Your task to perform on an android device: see creations saved in the google photos Image 0: 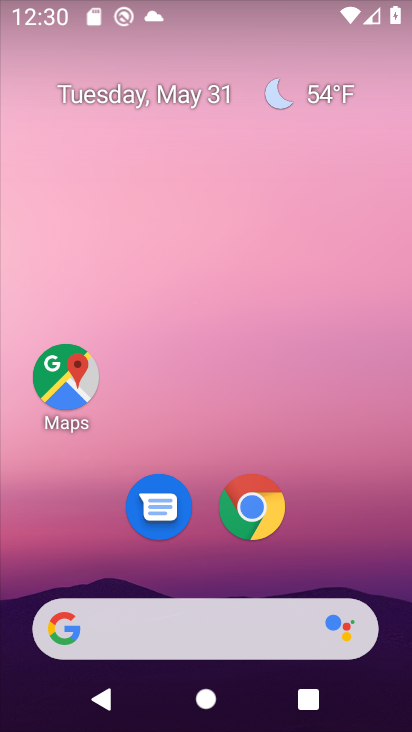
Step 0: drag from (287, 692) to (224, 208)
Your task to perform on an android device: see creations saved in the google photos Image 1: 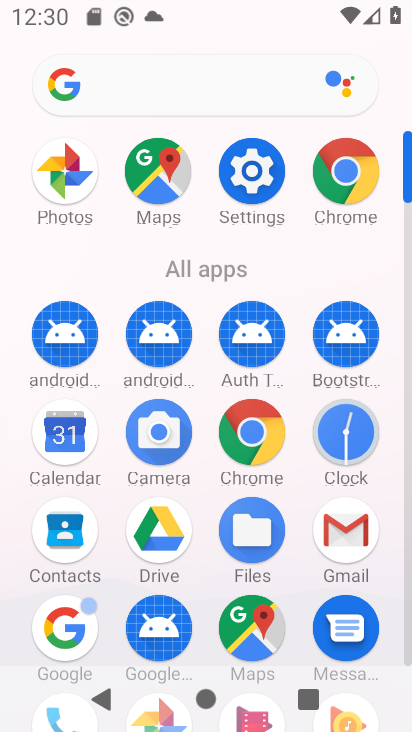
Step 1: click (62, 172)
Your task to perform on an android device: see creations saved in the google photos Image 2: 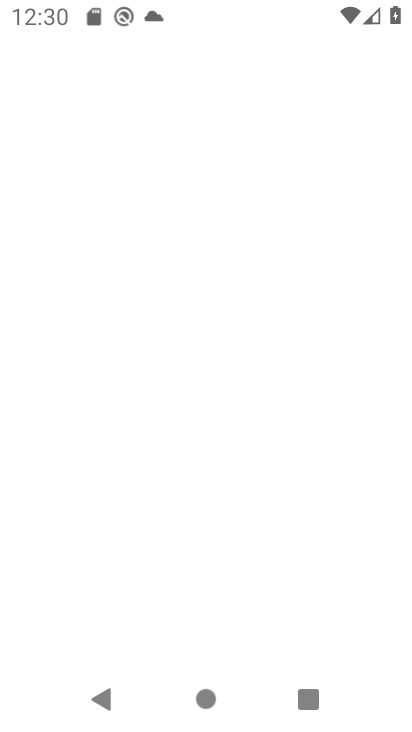
Step 2: click (62, 172)
Your task to perform on an android device: see creations saved in the google photos Image 3: 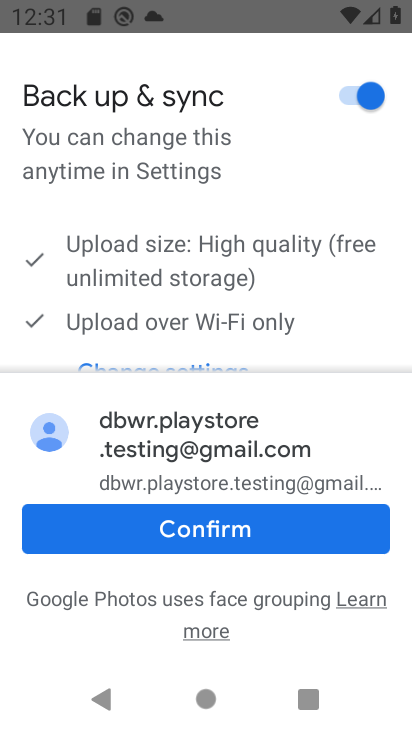
Step 3: click (224, 534)
Your task to perform on an android device: see creations saved in the google photos Image 4: 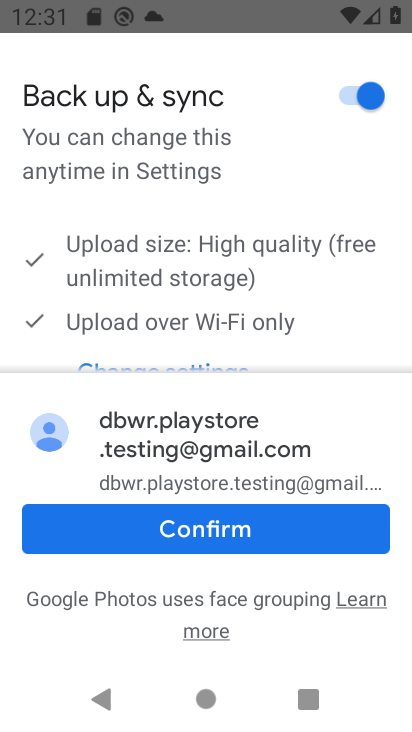
Step 4: click (229, 530)
Your task to perform on an android device: see creations saved in the google photos Image 5: 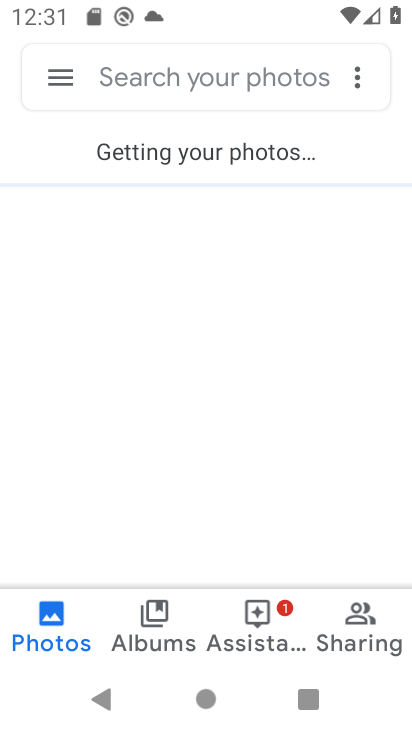
Step 5: task complete